Your task to perform on an android device: Go to Yahoo.com Image 0: 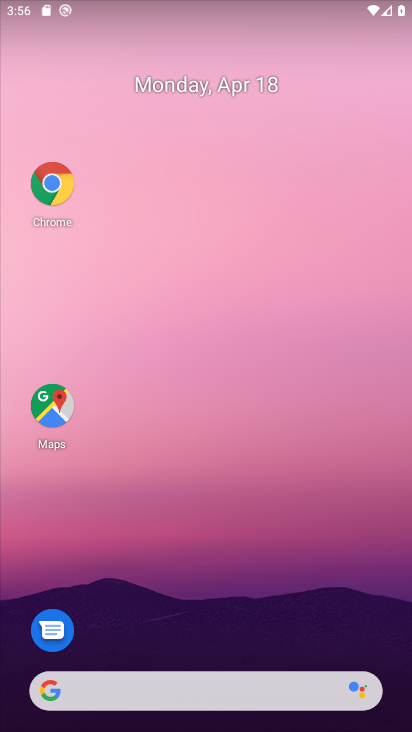
Step 0: drag from (233, 641) to (193, 52)
Your task to perform on an android device: Go to Yahoo.com Image 1: 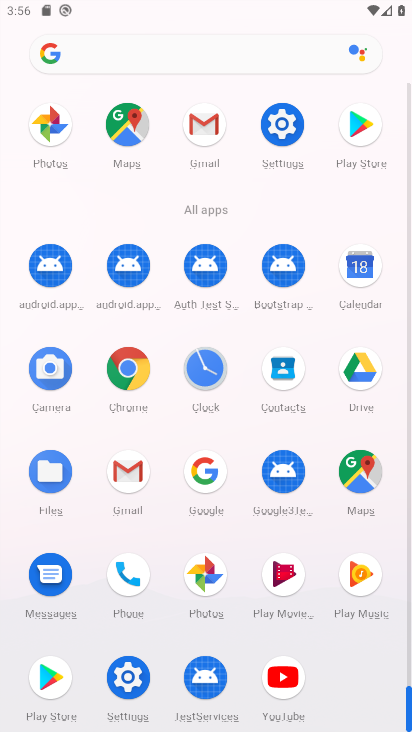
Step 1: click (118, 362)
Your task to perform on an android device: Go to Yahoo.com Image 2: 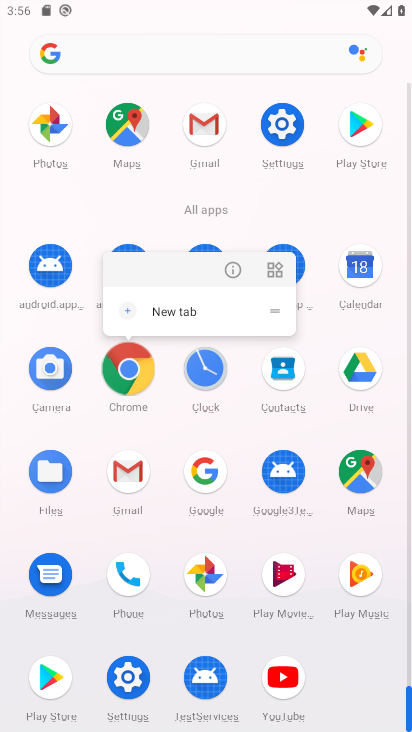
Step 2: click (118, 362)
Your task to perform on an android device: Go to Yahoo.com Image 3: 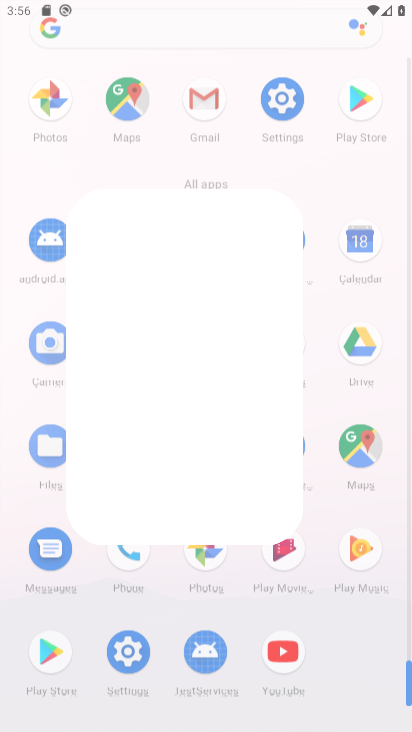
Step 3: click (118, 362)
Your task to perform on an android device: Go to Yahoo.com Image 4: 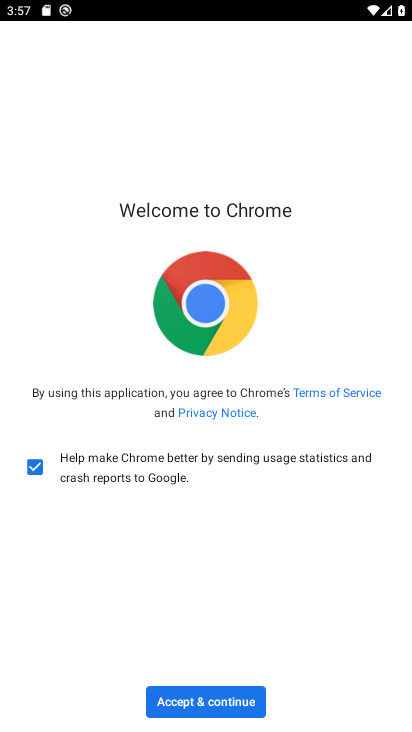
Step 4: click (201, 700)
Your task to perform on an android device: Go to Yahoo.com Image 5: 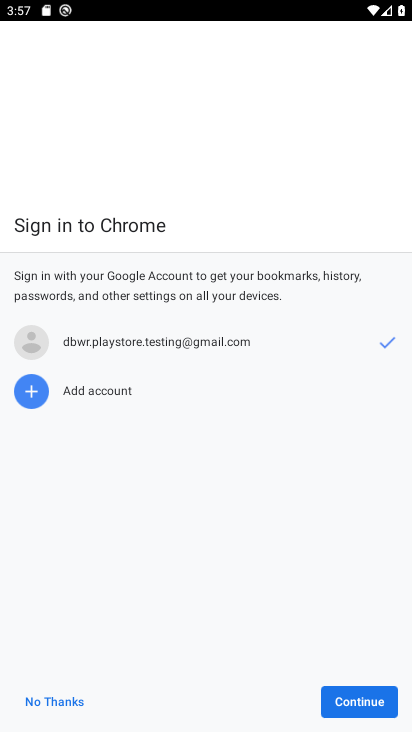
Step 5: click (366, 700)
Your task to perform on an android device: Go to Yahoo.com Image 6: 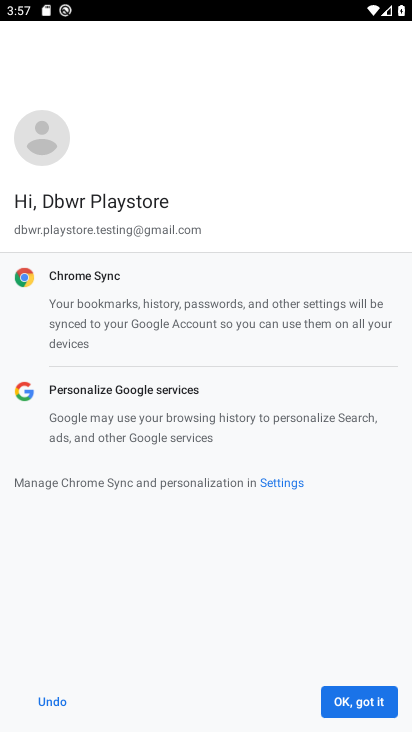
Step 6: click (367, 700)
Your task to perform on an android device: Go to Yahoo.com Image 7: 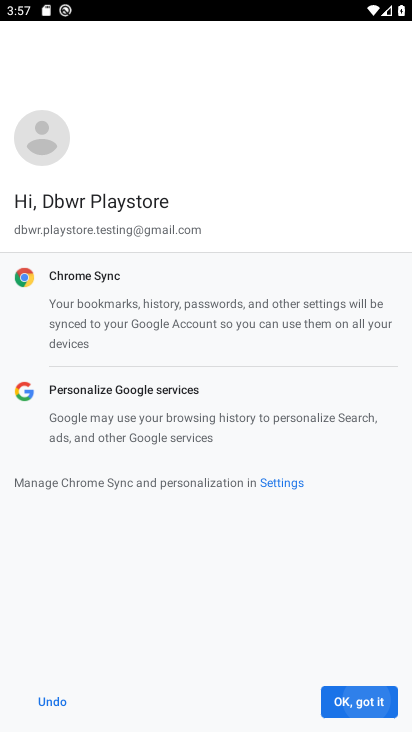
Step 7: click (367, 700)
Your task to perform on an android device: Go to Yahoo.com Image 8: 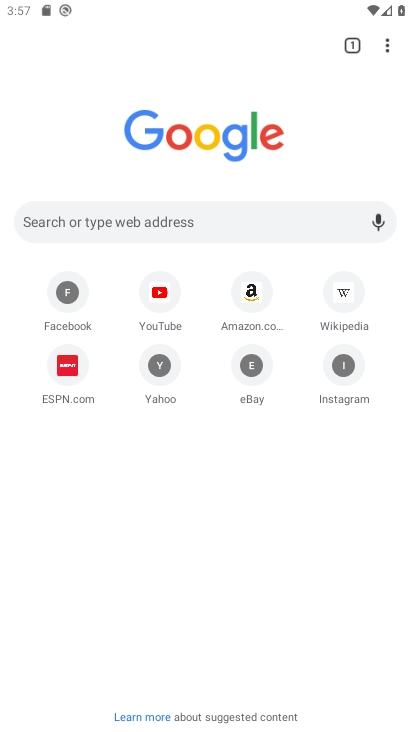
Step 8: click (92, 48)
Your task to perform on an android device: Go to Yahoo.com Image 9: 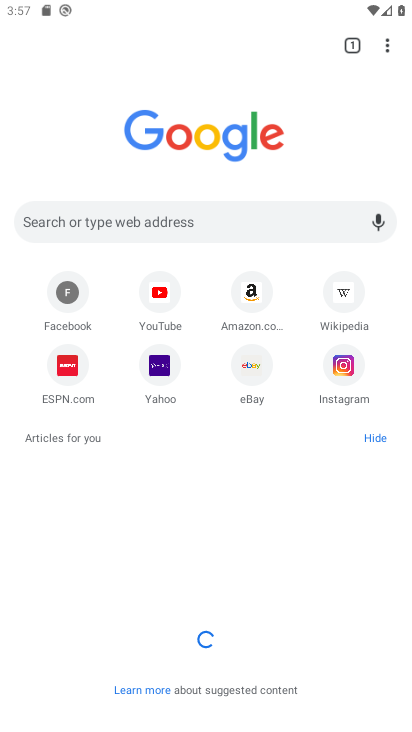
Step 9: click (80, 206)
Your task to perform on an android device: Go to Yahoo.com Image 10: 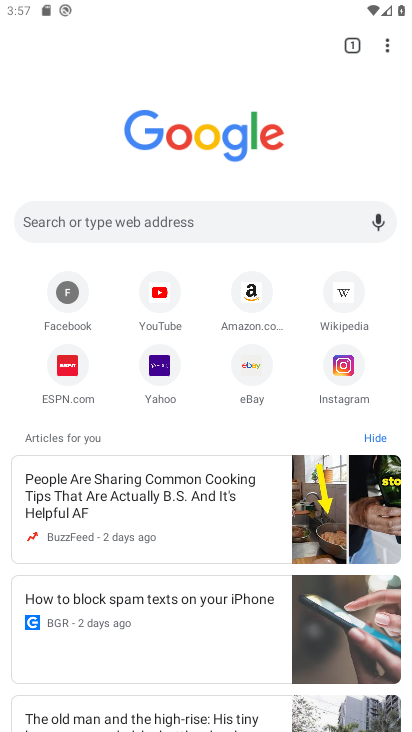
Step 10: click (81, 217)
Your task to perform on an android device: Go to Yahoo.com Image 11: 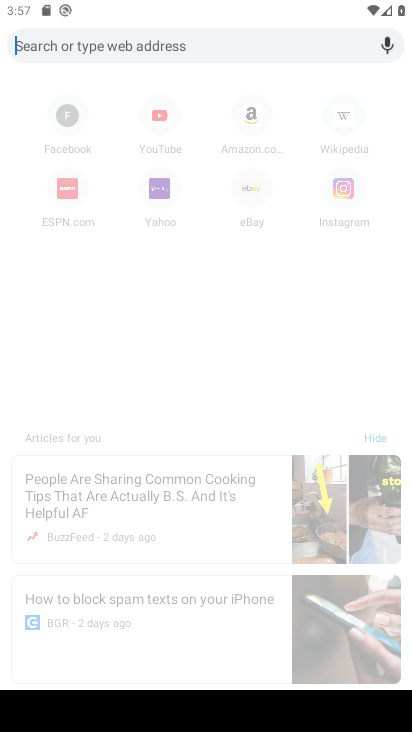
Step 11: click (21, 43)
Your task to perform on an android device: Go to Yahoo.com Image 12: 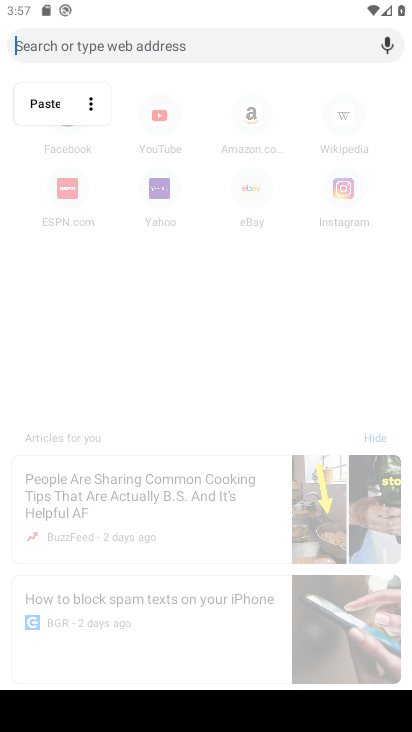
Step 12: type "yahoo.com"
Your task to perform on an android device: Go to Yahoo.com Image 13: 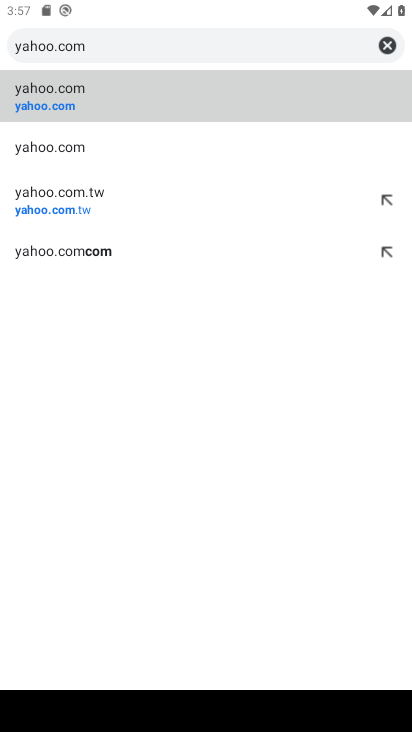
Step 13: click (237, 318)
Your task to perform on an android device: Go to Yahoo.com Image 14: 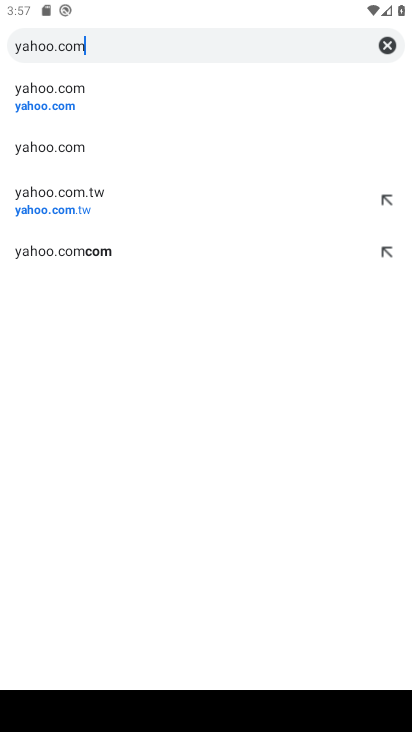
Step 14: click (57, 200)
Your task to perform on an android device: Go to Yahoo.com Image 15: 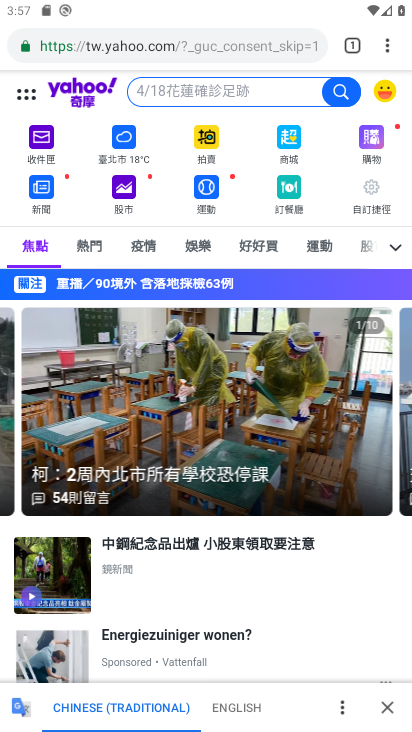
Step 15: task complete